Your task to perform on an android device: turn off notifications in google photos Image 0: 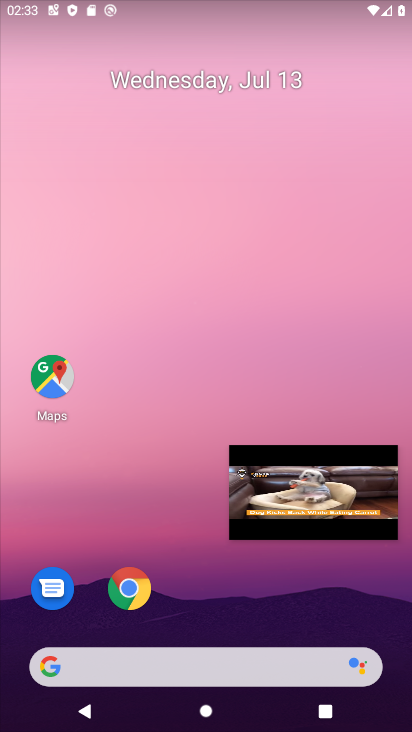
Step 0: click (339, 461)
Your task to perform on an android device: turn off notifications in google photos Image 1: 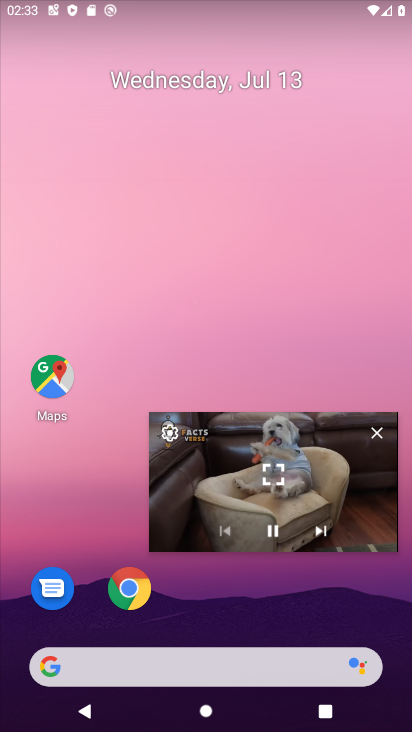
Step 1: click (373, 434)
Your task to perform on an android device: turn off notifications in google photos Image 2: 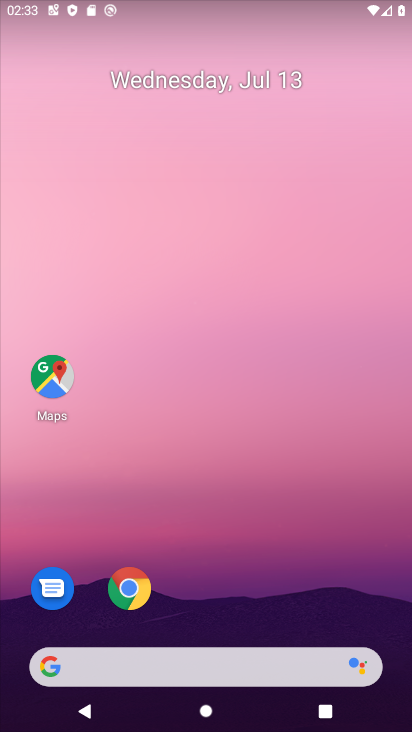
Step 2: drag from (386, 688) to (324, 252)
Your task to perform on an android device: turn off notifications in google photos Image 3: 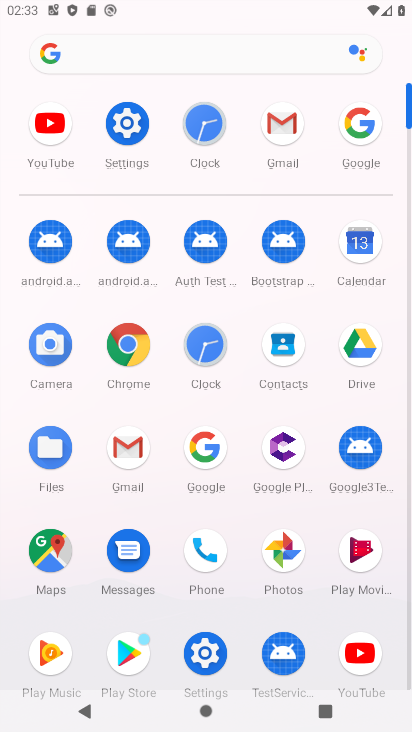
Step 3: click (286, 553)
Your task to perform on an android device: turn off notifications in google photos Image 4: 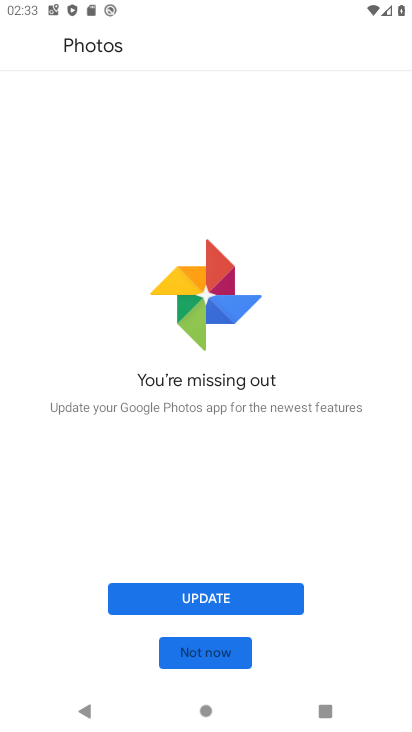
Step 4: click (229, 596)
Your task to perform on an android device: turn off notifications in google photos Image 5: 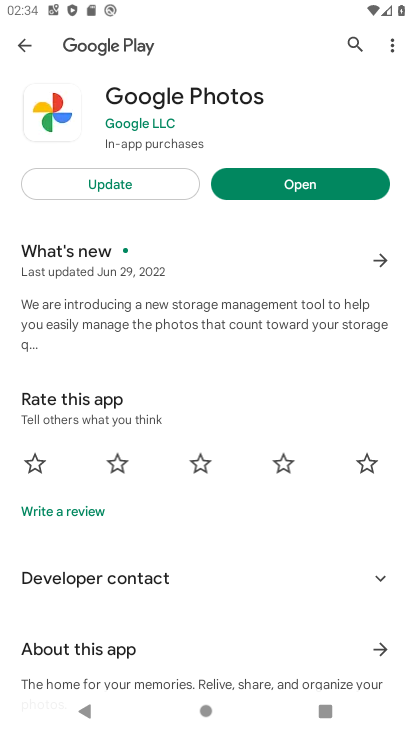
Step 5: click (150, 182)
Your task to perform on an android device: turn off notifications in google photos Image 6: 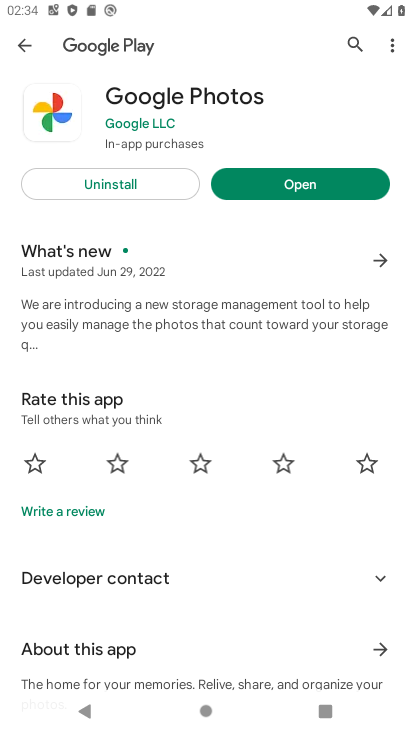
Step 6: click (315, 195)
Your task to perform on an android device: turn off notifications in google photos Image 7: 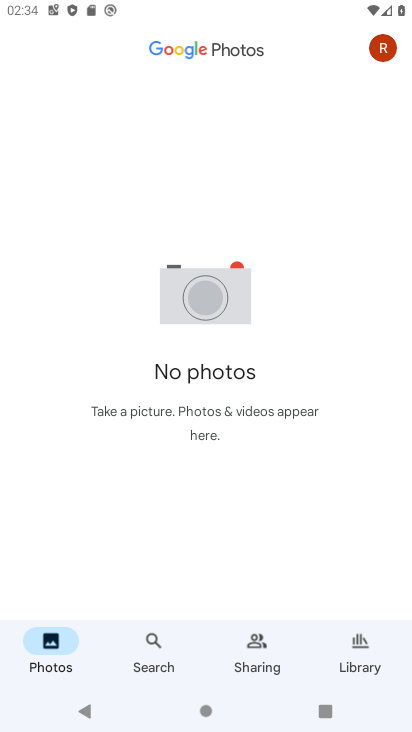
Step 7: task complete